Your task to perform on an android device: Show me popular videos on Youtube Image 0: 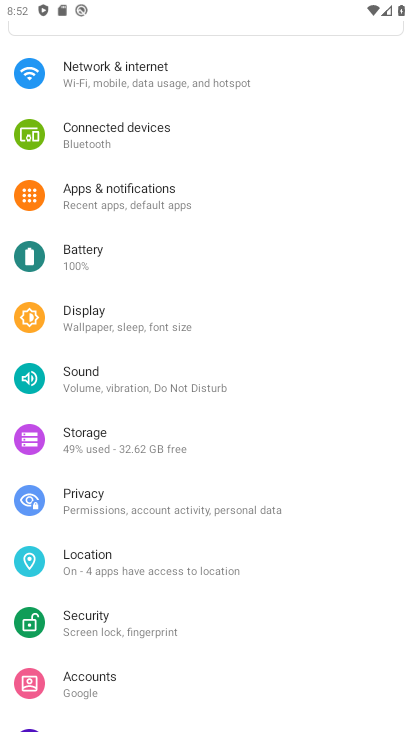
Step 0: press home button
Your task to perform on an android device: Show me popular videos on Youtube Image 1: 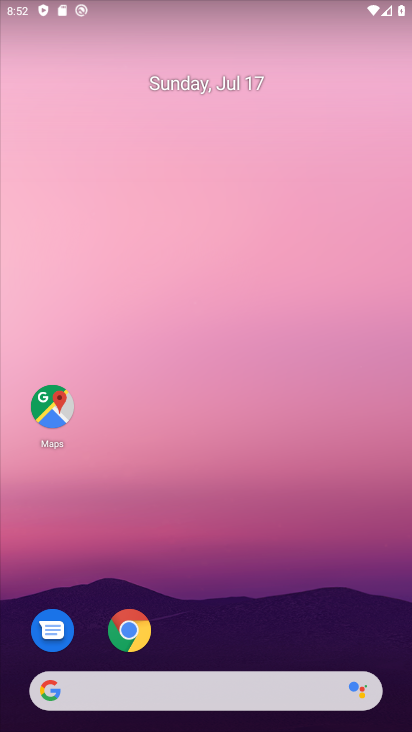
Step 1: drag from (267, 648) to (225, 228)
Your task to perform on an android device: Show me popular videos on Youtube Image 2: 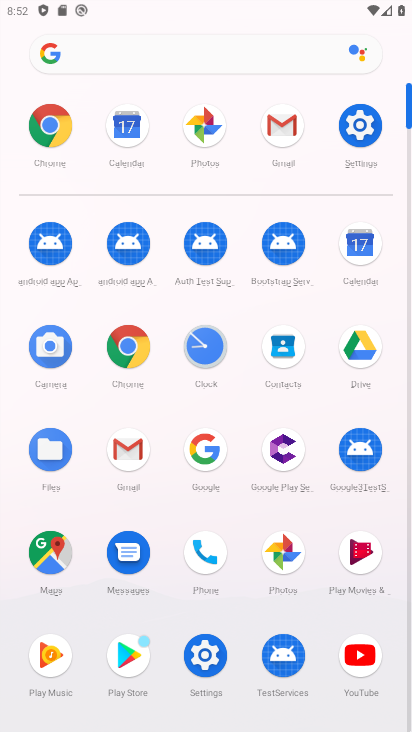
Step 2: click (353, 655)
Your task to perform on an android device: Show me popular videos on Youtube Image 3: 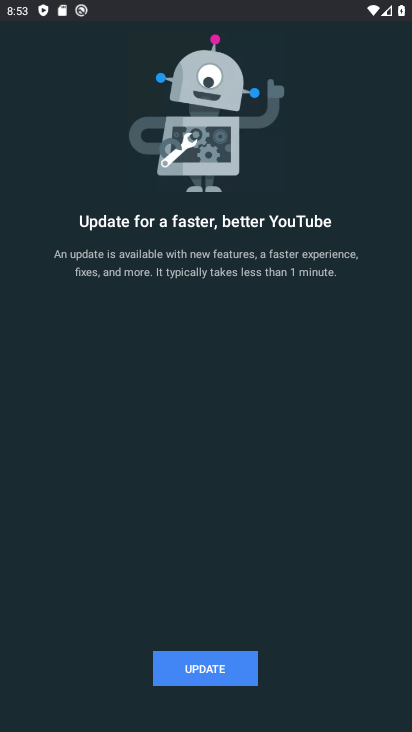
Step 3: click (226, 667)
Your task to perform on an android device: Show me popular videos on Youtube Image 4: 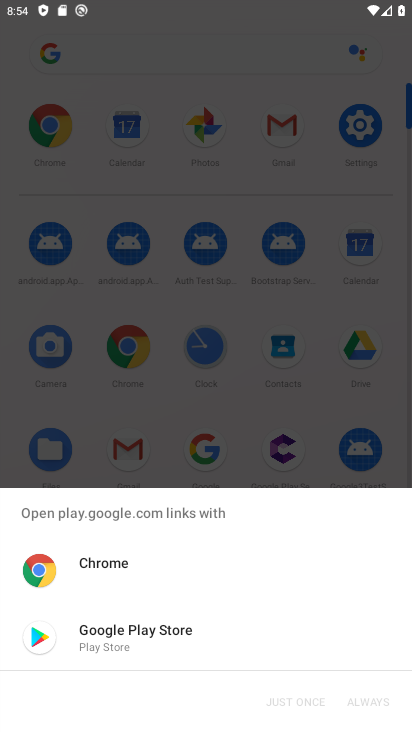
Step 4: click (105, 571)
Your task to perform on an android device: Show me popular videos on Youtube Image 5: 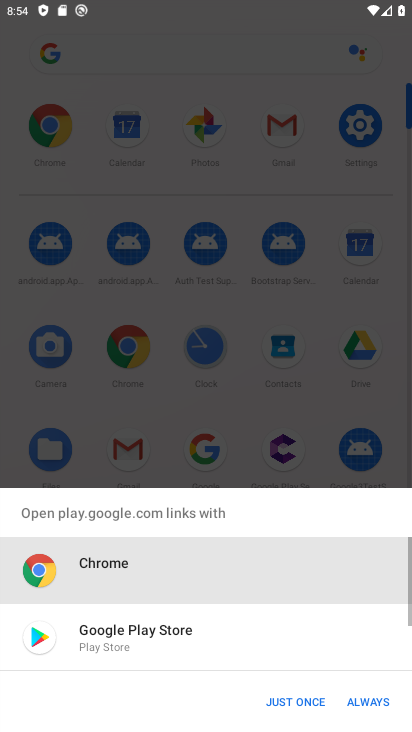
Step 5: click (164, 628)
Your task to perform on an android device: Show me popular videos on Youtube Image 6: 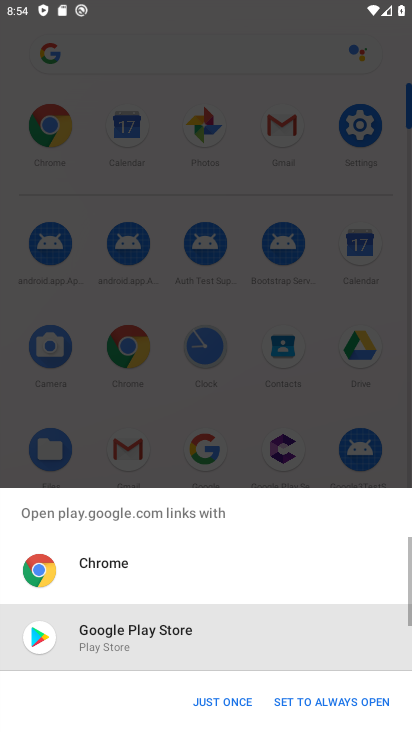
Step 6: click (277, 699)
Your task to perform on an android device: Show me popular videos on Youtube Image 7: 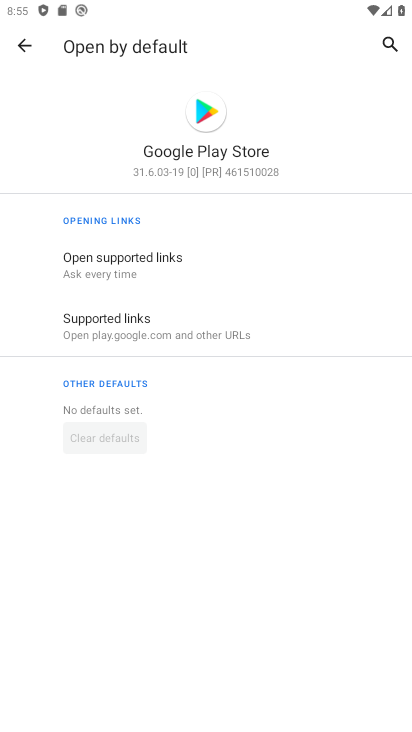
Step 7: task complete